Your task to perform on an android device: Open Chrome and go to settings Image 0: 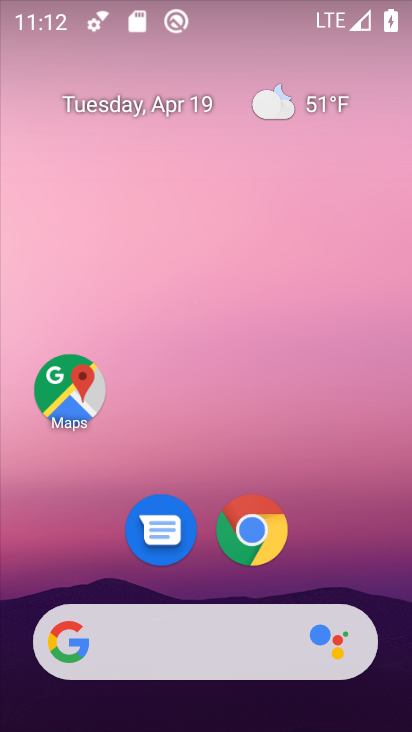
Step 0: drag from (174, 594) to (227, 86)
Your task to perform on an android device: Open Chrome and go to settings Image 1: 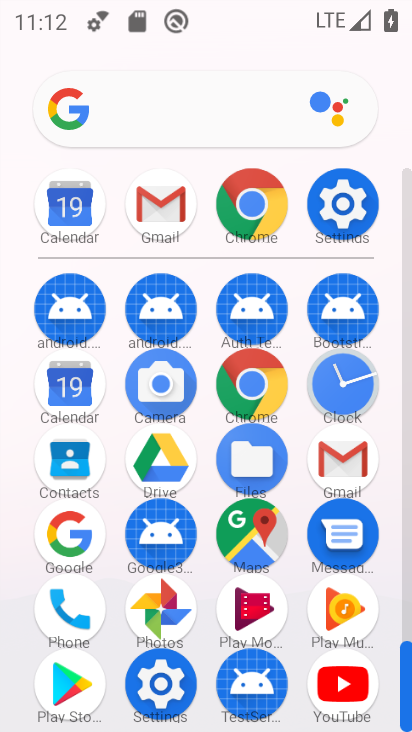
Step 1: click (252, 217)
Your task to perform on an android device: Open Chrome and go to settings Image 2: 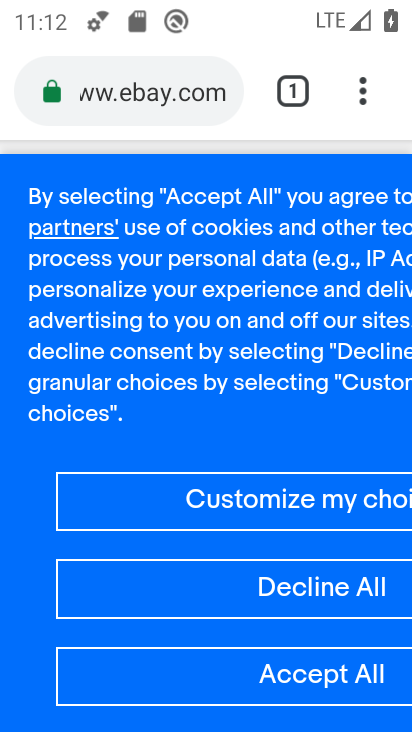
Step 2: click (363, 96)
Your task to perform on an android device: Open Chrome and go to settings Image 3: 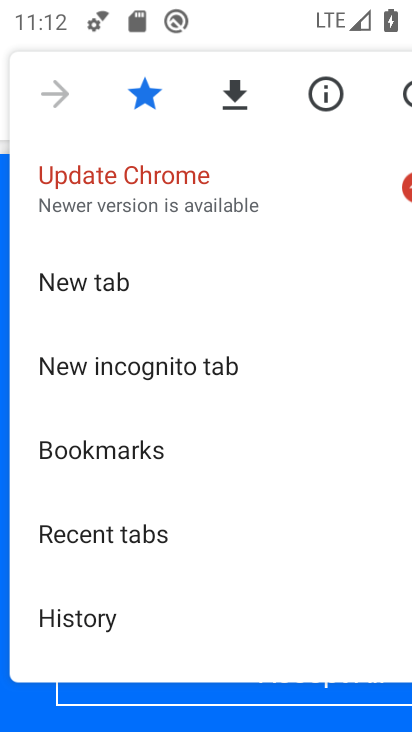
Step 3: drag from (192, 561) to (362, 96)
Your task to perform on an android device: Open Chrome and go to settings Image 4: 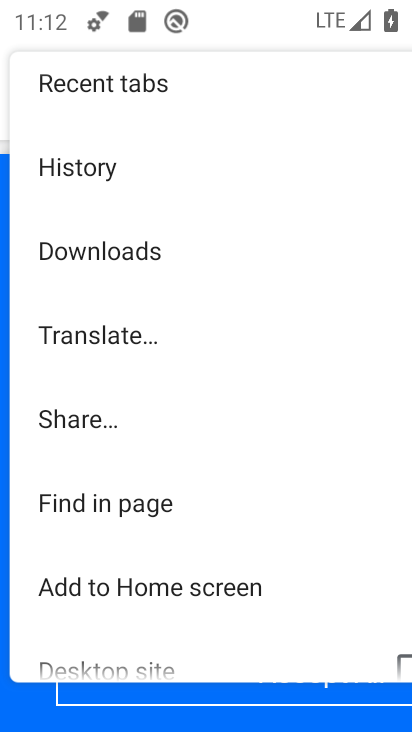
Step 4: drag from (213, 603) to (336, 153)
Your task to perform on an android device: Open Chrome and go to settings Image 5: 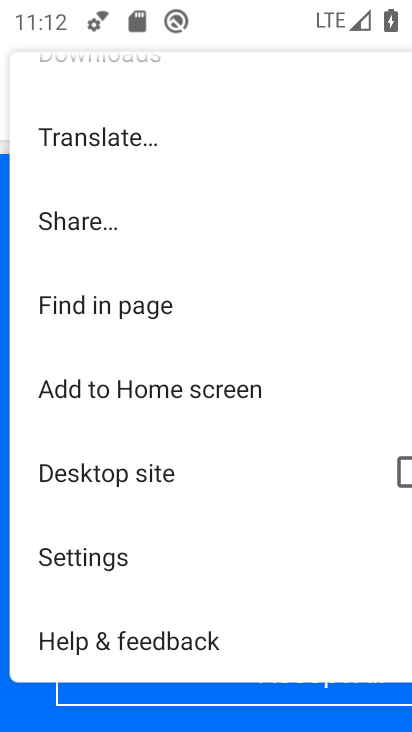
Step 5: click (80, 551)
Your task to perform on an android device: Open Chrome and go to settings Image 6: 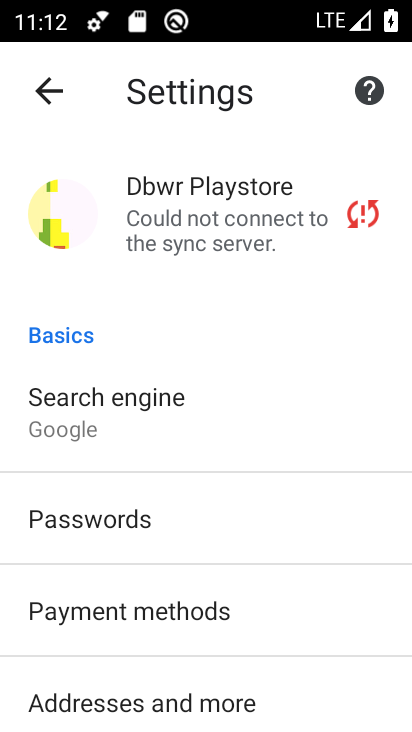
Step 6: task complete